Your task to perform on an android device: turn off airplane mode Image 0: 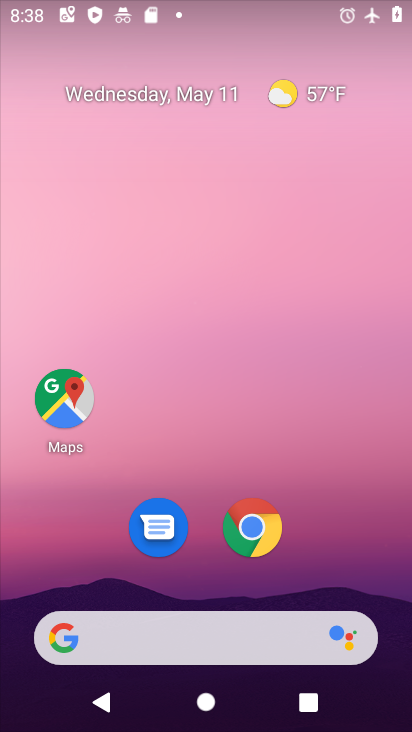
Step 0: drag from (365, 589) to (378, 4)
Your task to perform on an android device: turn off airplane mode Image 1: 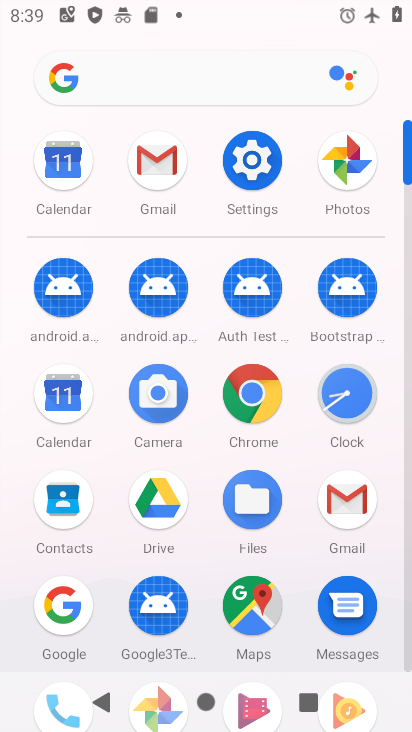
Step 1: click (244, 170)
Your task to perform on an android device: turn off airplane mode Image 2: 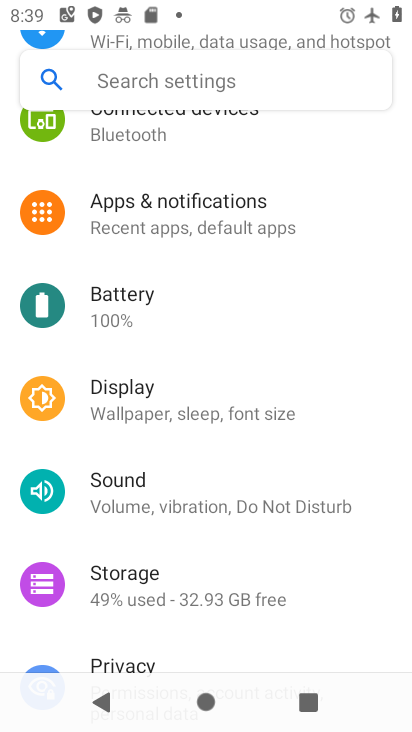
Step 2: drag from (302, 316) to (266, 578)
Your task to perform on an android device: turn off airplane mode Image 3: 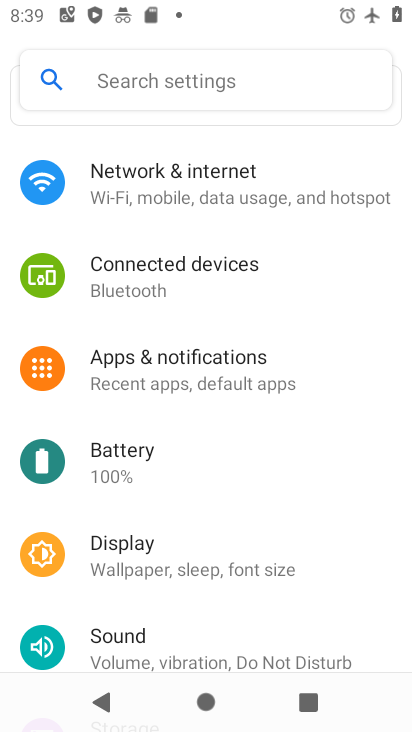
Step 3: click (223, 208)
Your task to perform on an android device: turn off airplane mode Image 4: 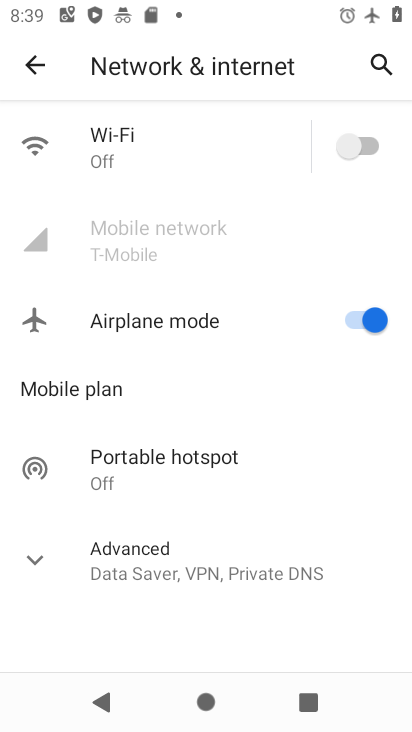
Step 4: click (368, 325)
Your task to perform on an android device: turn off airplane mode Image 5: 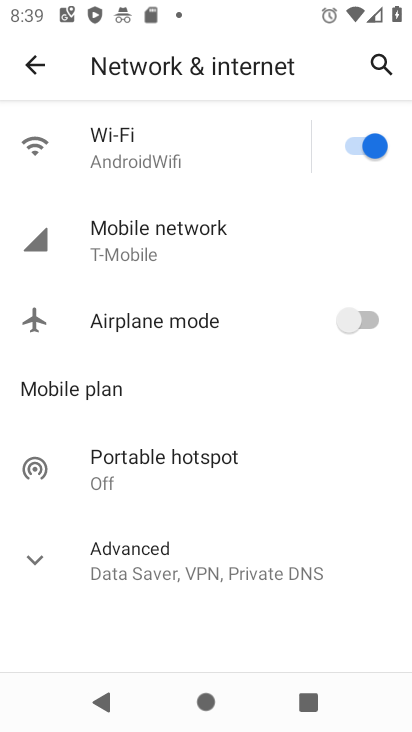
Step 5: task complete